Your task to perform on an android device: Open Google Maps and go to "Timeline" Image 0: 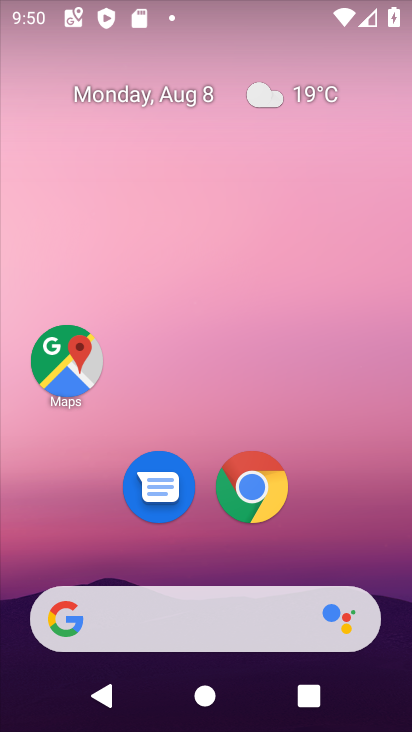
Step 0: drag from (213, 550) to (220, 151)
Your task to perform on an android device: Open Google Maps and go to "Timeline" Image 1: 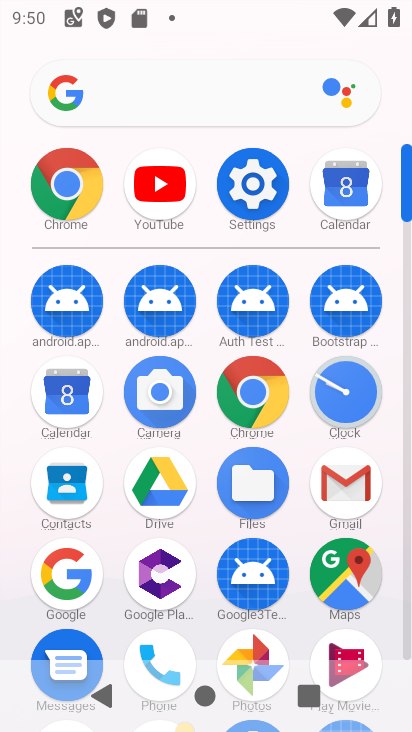
Step 1: click (343, 567)
Your task to perform on an android device: Open Google Maps and go to "Timeline" Image 2: 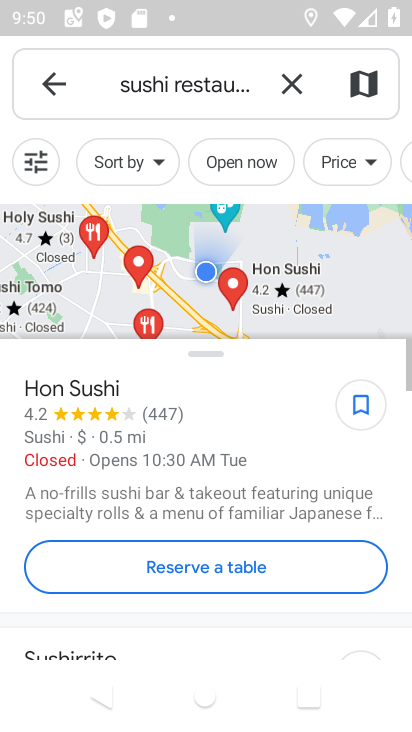
Step 2: click (51, 88)
Your task to perform on an android device: Open Google Maps and go to "Timeline" Image 3: 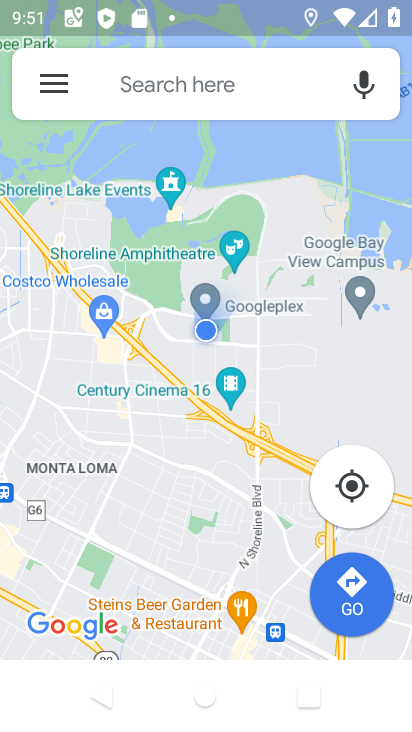
Step 3: click (67, 72)
Your task to perform on an android device: Open Google Maps and go to "Timeline" Image 4: 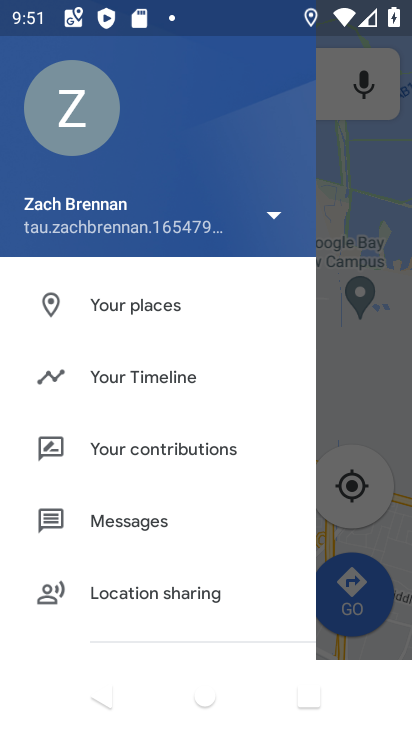
Step 4: click (148, 378)
Your task to perform on an android device: Open Google Maps and go to "Timeline" Image 5: 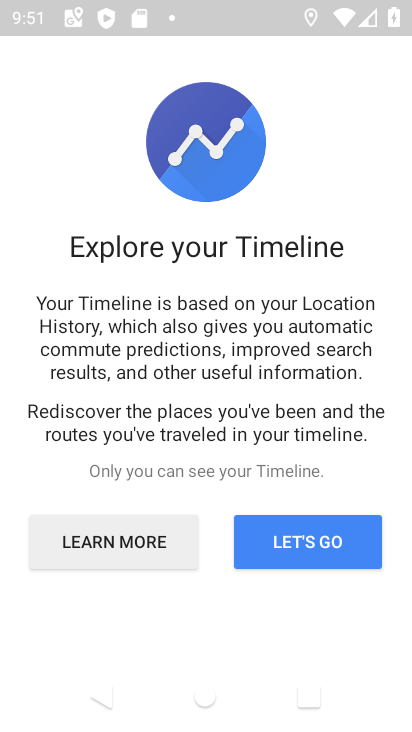
Step 5: click (292, 538)
Your task to perform on an android device: Open Google Maps and go to "Timeline" Image 6: 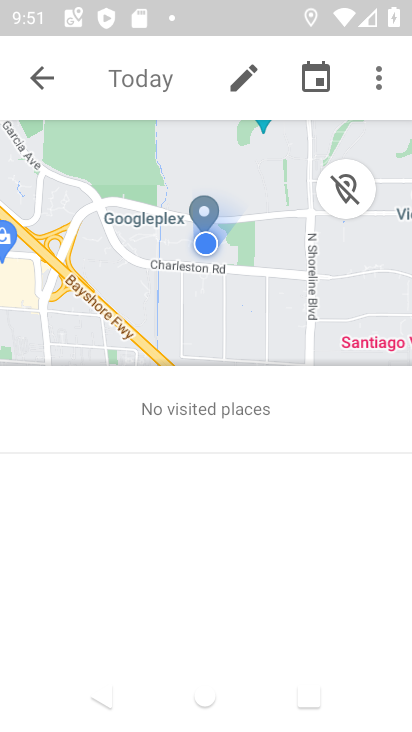
Step 6: task complete